Your task to perform on an android device: toggle sleep mode Image 0: 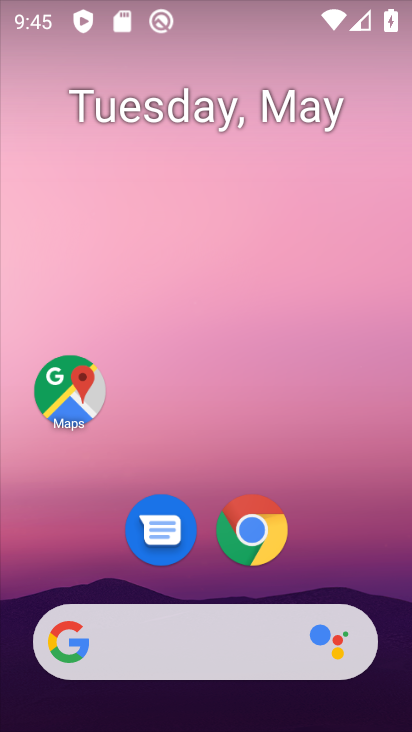
Step 0: drag from (219, 563) to (199, 190)
Your task to perform on an android device: toggle sleep mode Image 1: 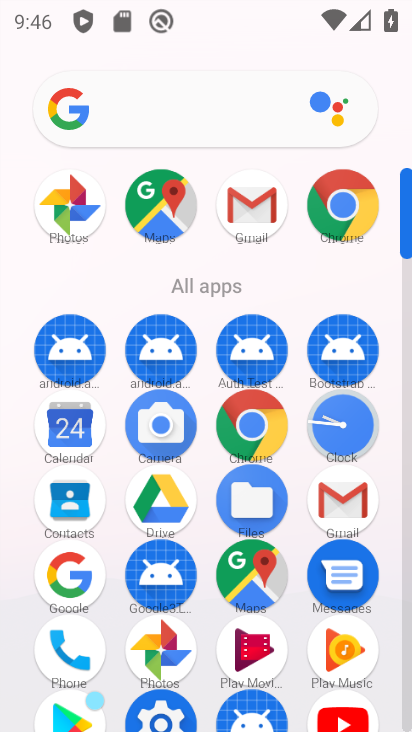
Step 1: drag from (203, 607) to (202, 253)
Your task to perform on an android device: toggle sleep mode Image 2: 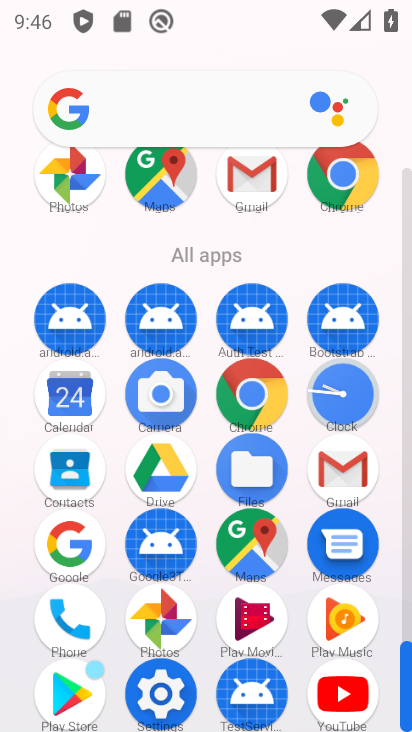
Step 2: drag from (206, 372) to (212, 228)
Your task to perform on an android device: toggle sleep mode Image 3: 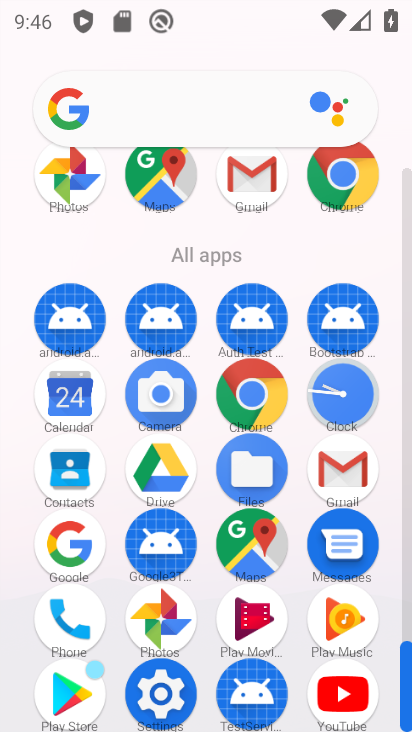
Step 3: drag from (213, 355) to (211, 210)
Your task to perform on an android device: toggle sleep mode Image 4: 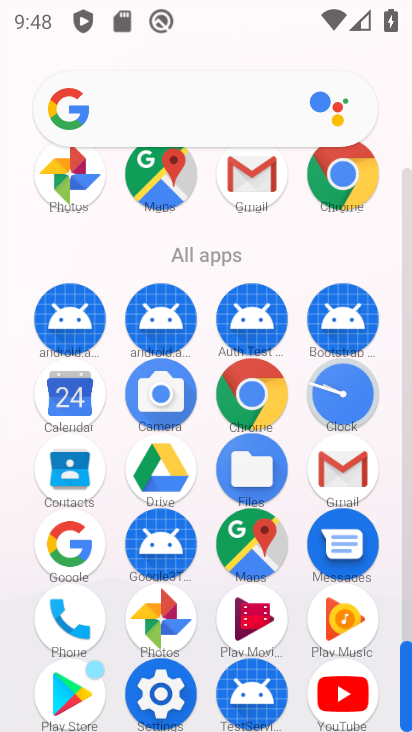
Step 4: click (161, 692)
Your task to perform on an android device: toggle sleep mode Image 5: 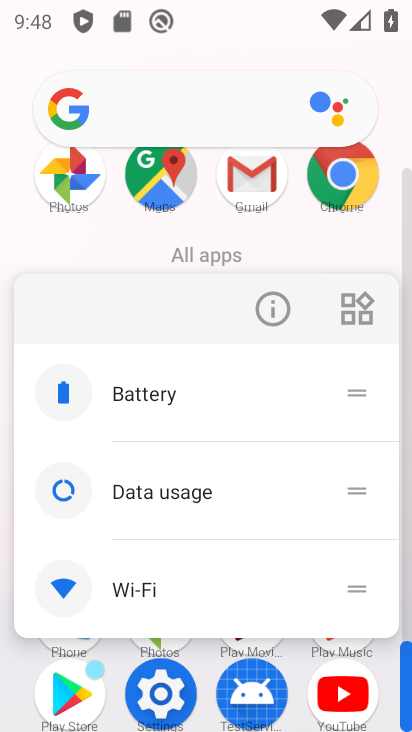
Step 5: click (287, 310)
Your task to perform on an android device: toggle sleep mode Image 6: 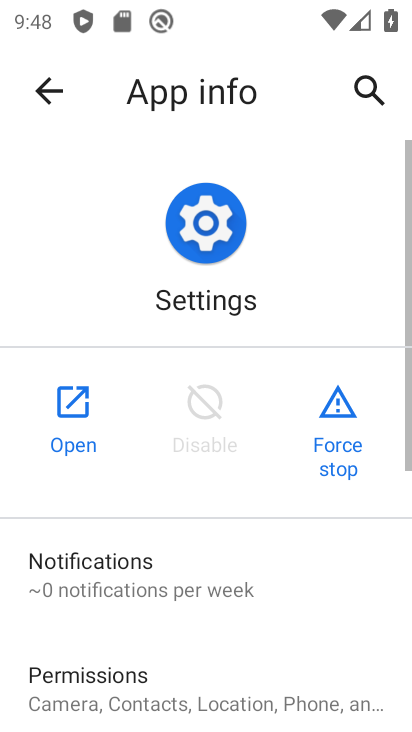
Step 6: click (79, 427)
Your task to perform on an android device: toggle sleep mode Image 7: 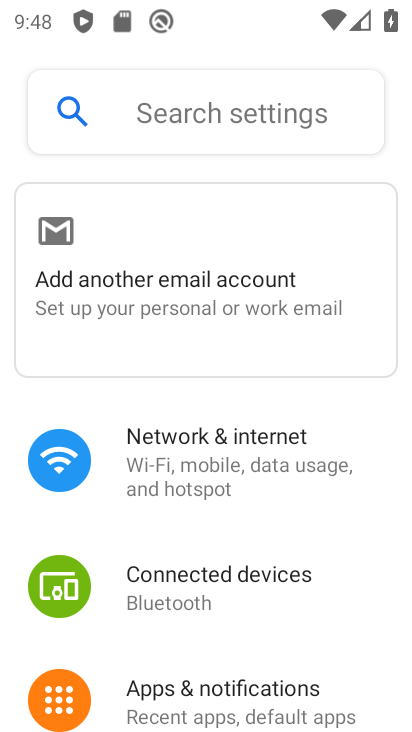
Step 7: drag from (255, 607) to (289, 85)
Your task to perform on an android device: toggle sleep mode Image 8: 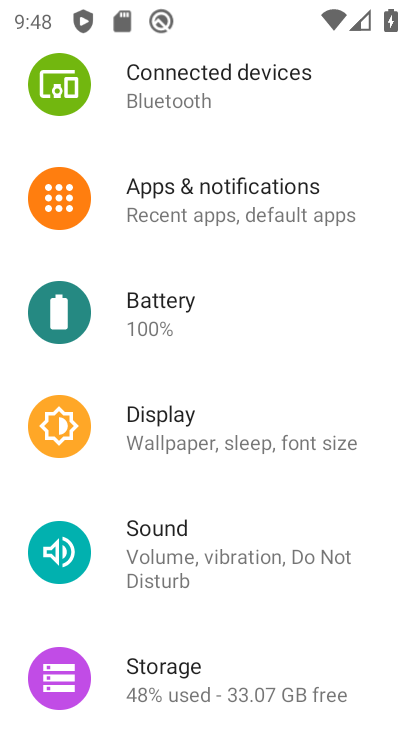
Step 8: click (189, 432)
Your task to perform on an android device: toggle sleep mode Image 9: 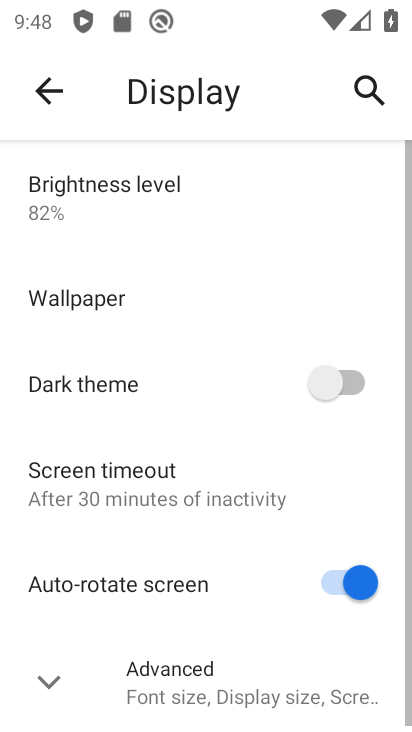
Step 9: click (142, 471)
Your task to perform on an android device: toggle sleep mode Image 10: 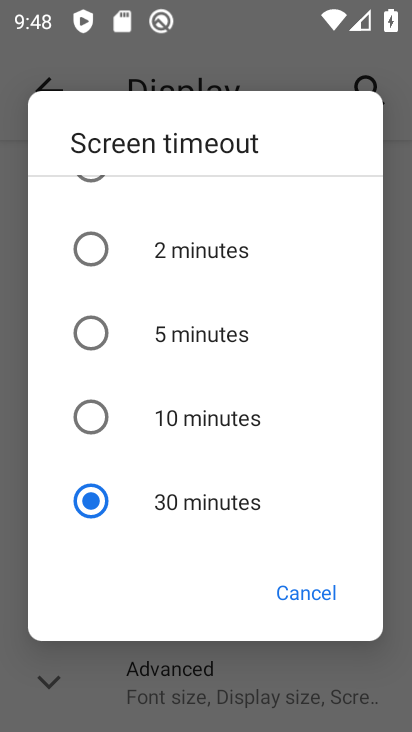
Step 10: task complete